Your task to perform on an android device: allow notifications from all sites in the chrome app Image 0: 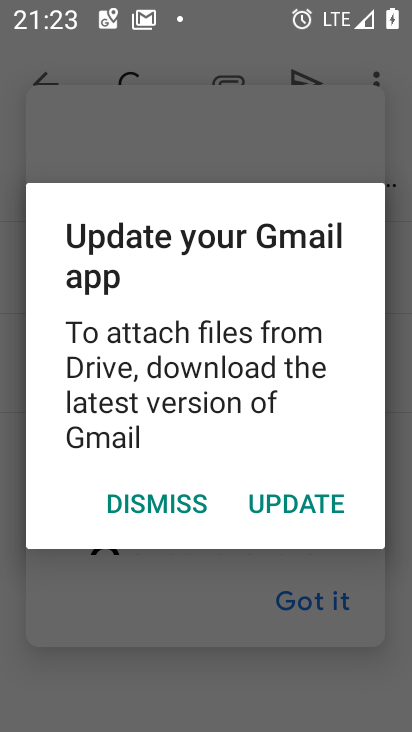
Step 0: press home button
Your task to perform on an android device: allow notifications from all sites in the chrome app Image 1: 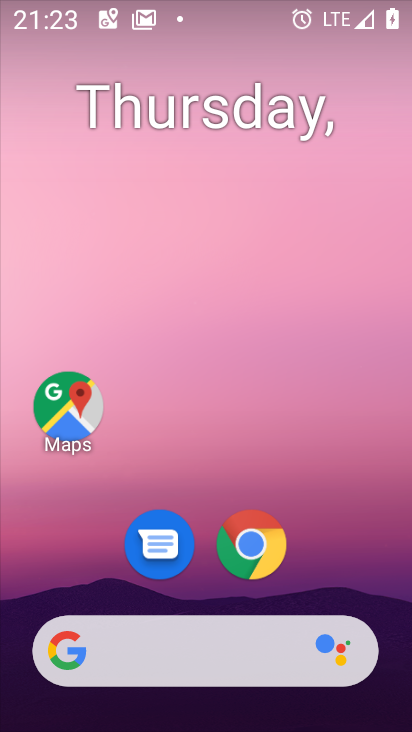
Step 1: click (251, 545)
Your task to perform on an android device: allow notifications from all sites in the chrome app Image 2: 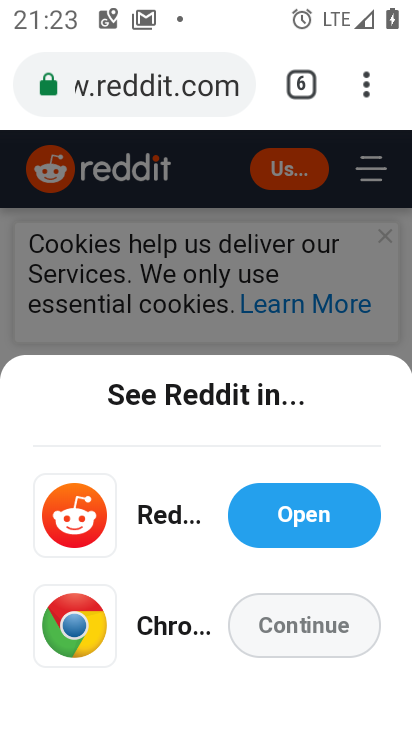
Step 2: click (352, 76)
Your task to perform on an android device: allow notifications from all sites in the chrome app Image 3: 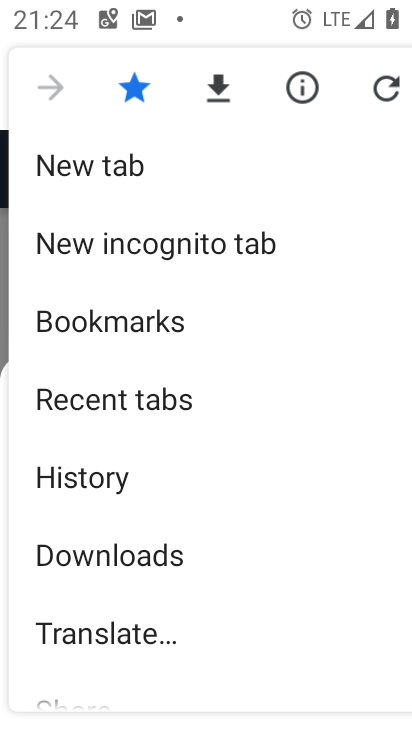
Step 3: drag from (94, 663) to (177, 242)
Your task to perform on an android device: allow notifications from all sites in the chrome app Image 4: 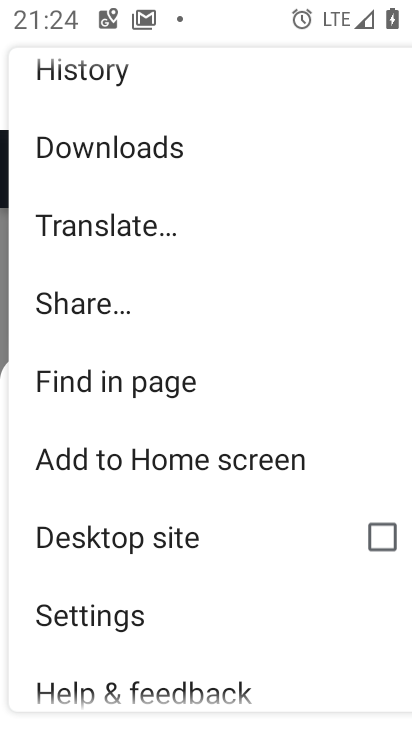
Step 4: click (178, 642)
Your task to perform on an android device: allow notifications from all sites in the chrome app Image 5: 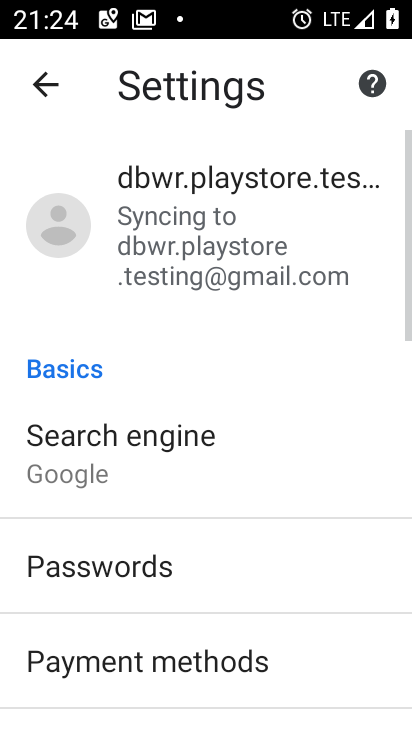
Step 5: drag from (154, 630) to (245, 170)
Your task to perform on an android device: allow notifications from all sites in the chrome app Image 6: 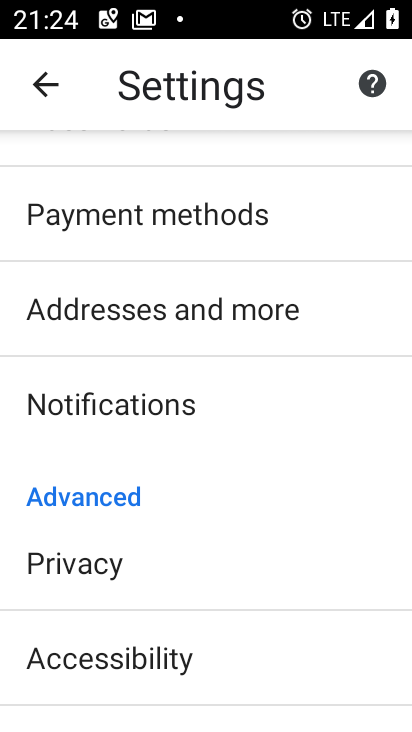
Step 6: click (188, 430)
Your task to perform on an android device: allow notifications from all sites in the chrome app Image 7: 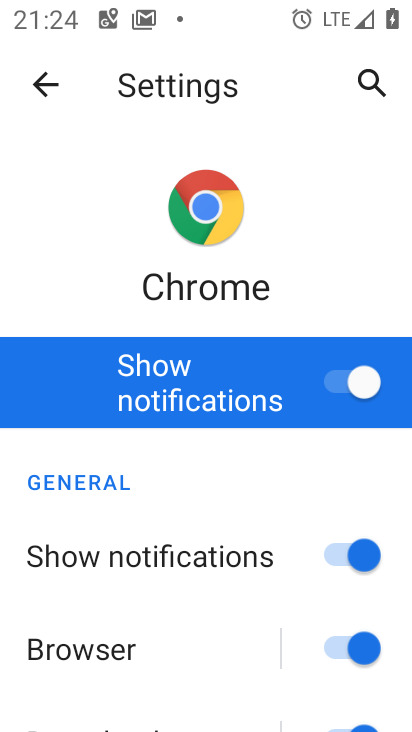
Step 7: task complete